Your task to perform on an android device: toggle translation in the chrome app Image 0: 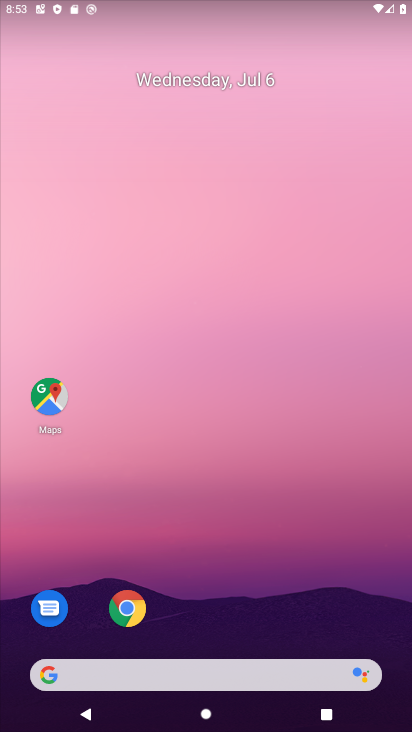
Step 0: click (129, 615)
Your task to perform on an android device: toggle translation in the chrome app Image 1: 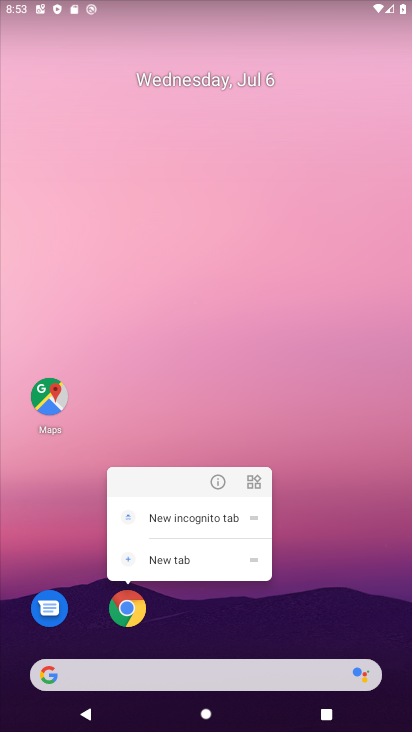
Step 1: click (126, 613)
Your task to perform on an android device: toggle translation in the chrome app Image 2: 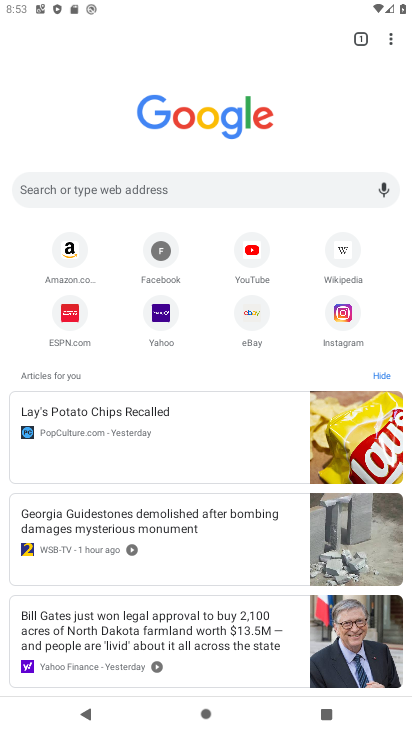
Step 2: click (386, 37)
Your task to perform on an android device: toggle translation in the chrome app Image 3: 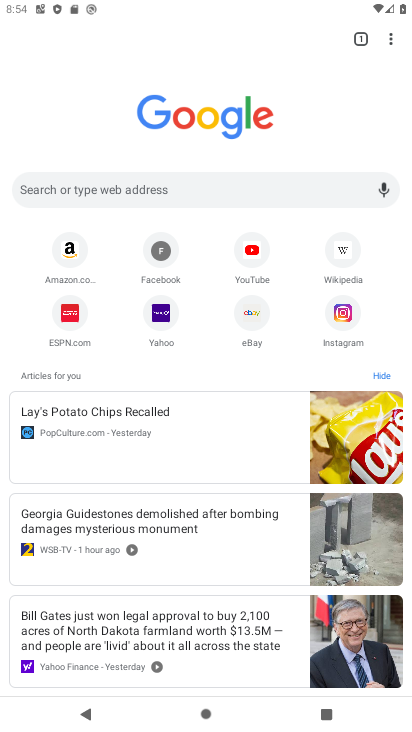
Step 3: click (393, 40)
Your task to perform on an android device: toggle translation in the chrome app Image 4: 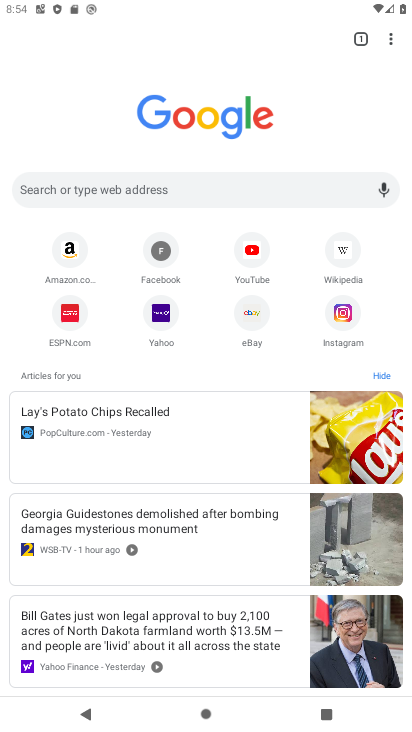
Step 4: click (393, 41)
Your task to perform on an android device: toggle translation in the chrome app Image 5: 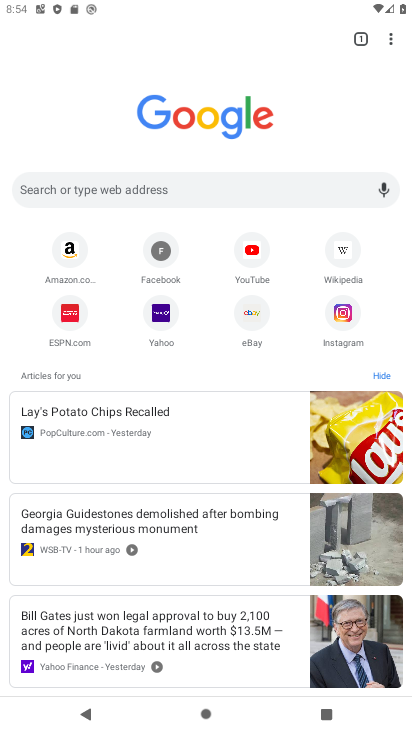
Step 5: click (388, 38)
Your task to perform on an android device: toggle translation in the chrome app Image 6: 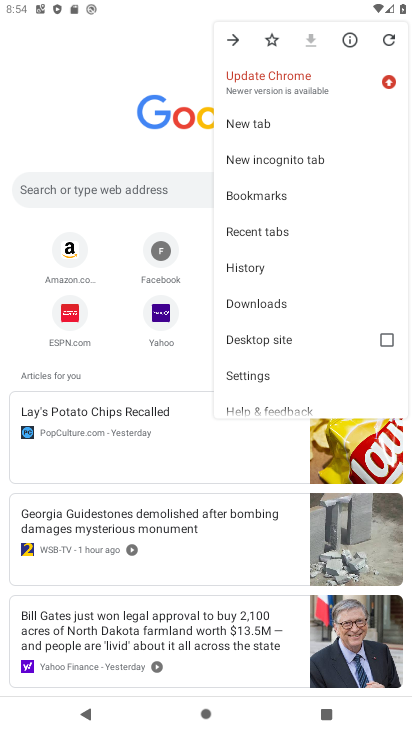
Step 6: click (261, 376)
Your task to perform on an android device: toggle translation in the chrome app Image 7: 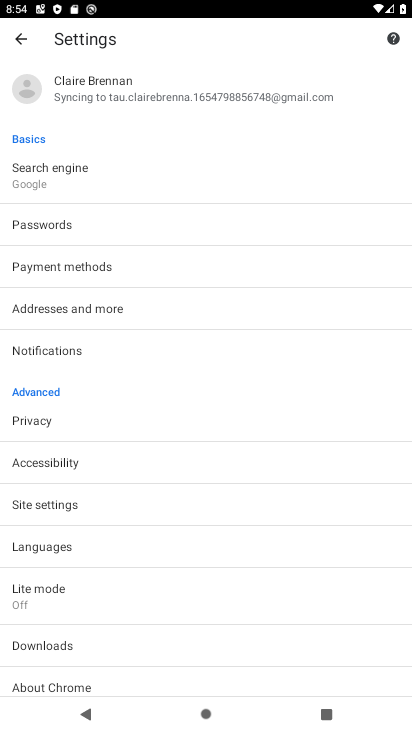
Step 7: click (68, 548)
Your task to perform on an android device: toggle translation in the chrome app Image 8: 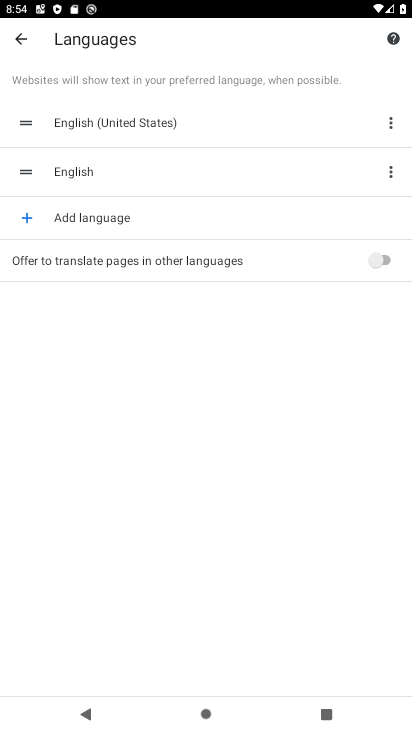
Step 8: click (386, 256)
Your task to perform on an android device: toggle translation in the chrome app Image 9: 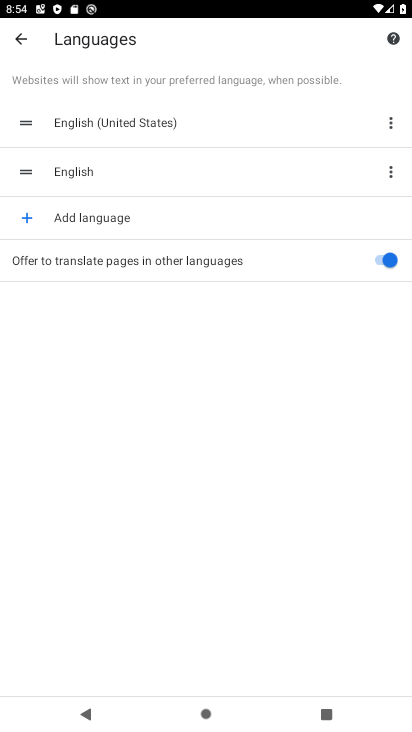
Step 9: task complete